Your task to perform on an android device: Open Google Maps Image 0: 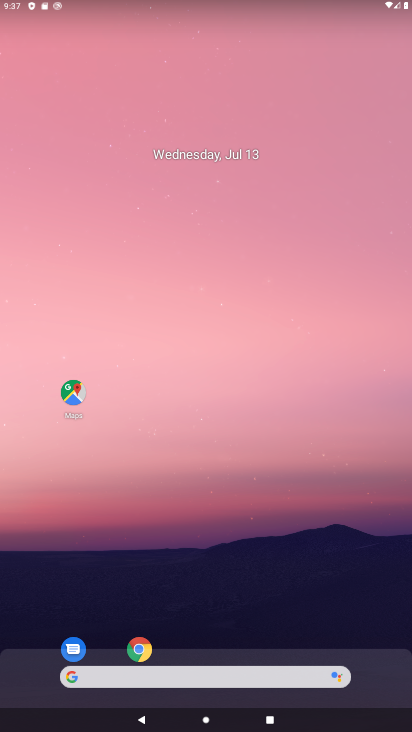
Step 0: click (77, 389)
Your task to perform on an android device: Open Google Maps Image 1: 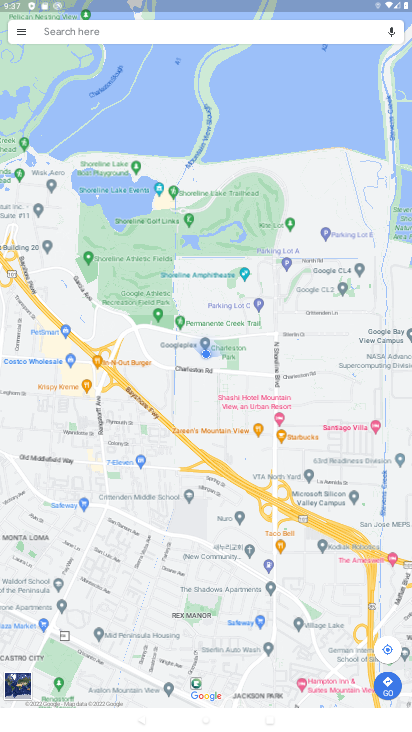
Step 1: task complete